Your task to perform on an android device: check out phone information Image 0: 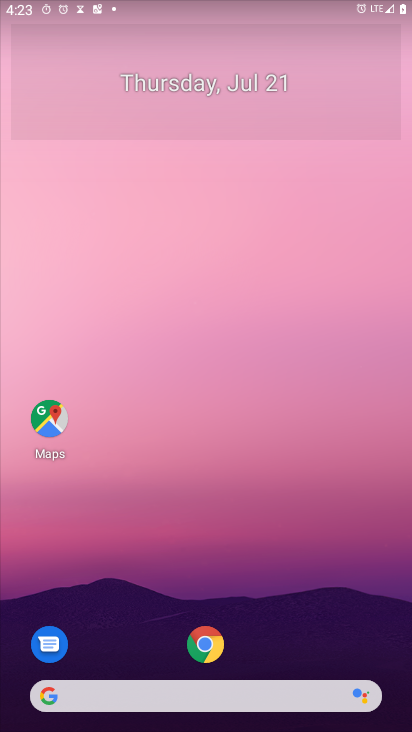
Step 0: press home button
Your task to perform on an android device: check out phone information Image 1: 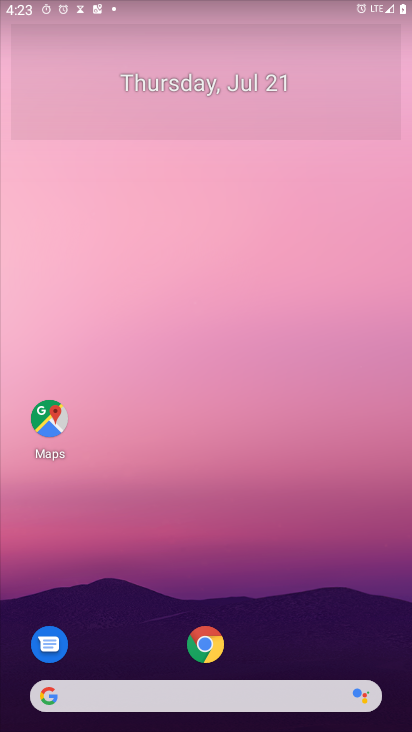
Step 1: drag from (311, 639) to (373, 155)
Your task to perform on an android device: check out phone information Image 2: 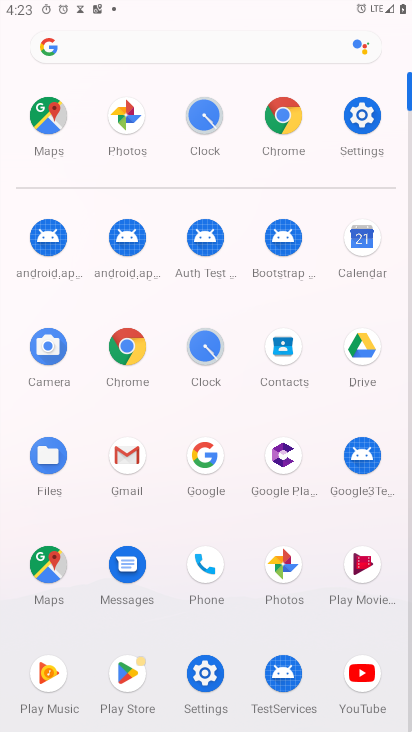
Step 2: click (362, 123)
Your task to perform on an android device: check out phone information Image 3: 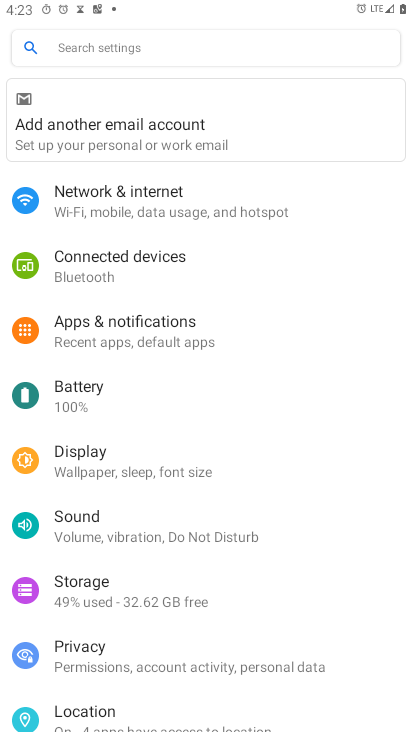
Step 3: drag from (346, 683) to (336, 161)
Your task to perform on an android device: check out phone information Image 4: 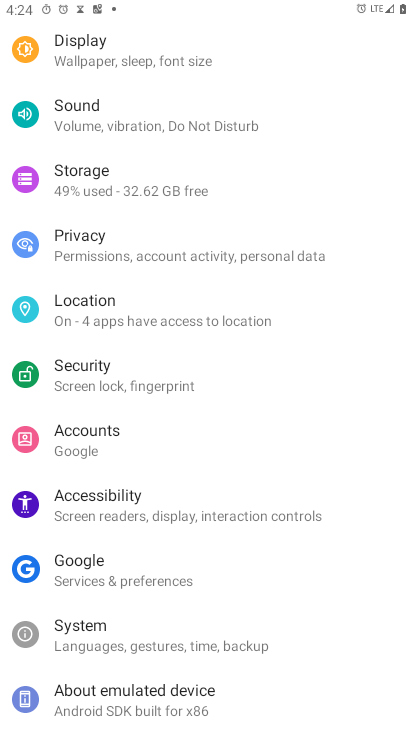
Step 4: click (164, 710)
Your task to perform on an android device: check out phone information Image 5: 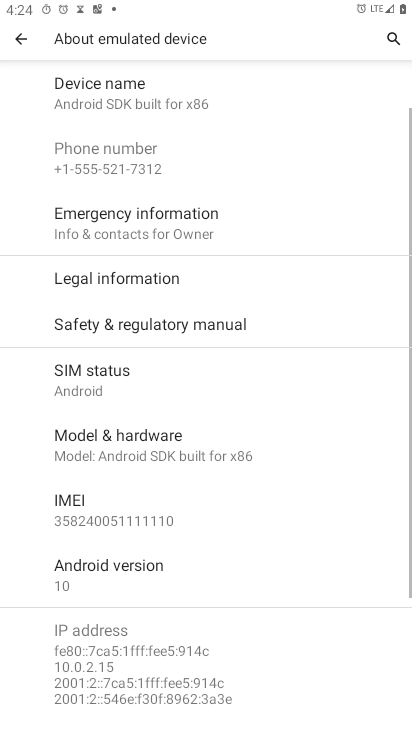
Step 5: task complete